Your task to perform on an android device: make emails show in primary in the gmail app Image 0: 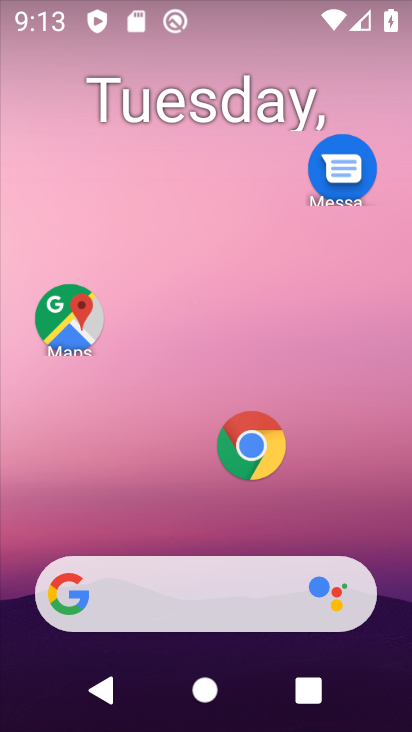
Step 0: click (34, 340)
Your task to perform on an android device: make emails show in primary in the gmail app Image 1: 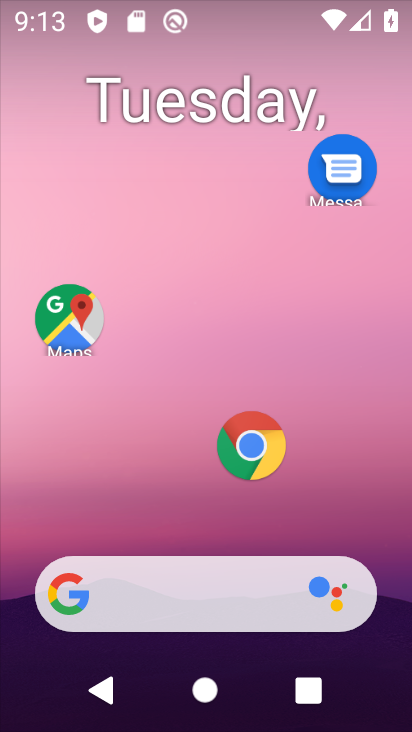
Step 1: drag from (1, 623) to (171, 282)
Your task to perform on an android device: make emails show in primary in the gmail app Image 2: 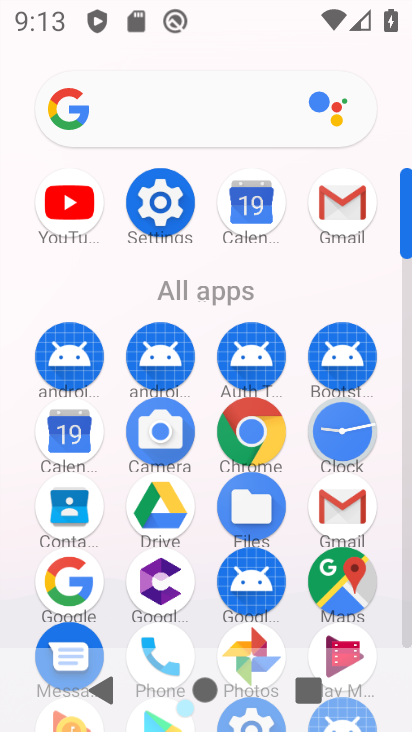
Step 2: click (368, 205)
Your task to perform on an android device: make emails show in primary in the gmail app Image 3: 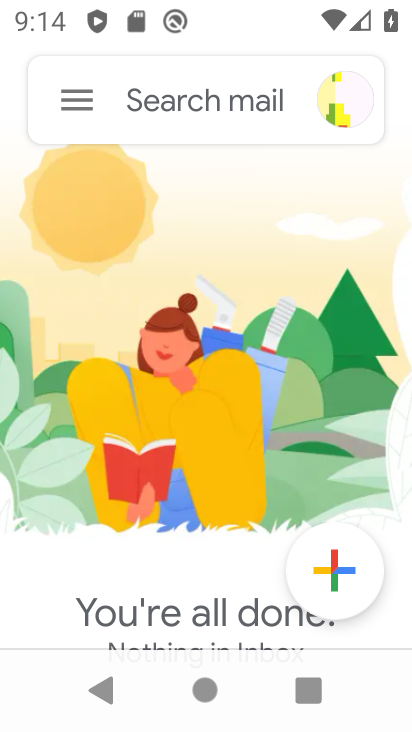
Step 3: click (95, 89)
Your task to perform on an android device: make emails show in primary in the gmail app Image 4: 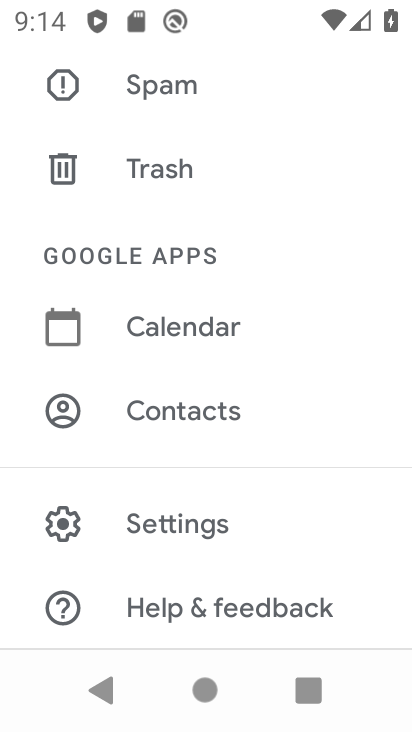
Step 4: task complete